Your task to perform on an android device: Open Youtube and go to "Your channel" Image 0: 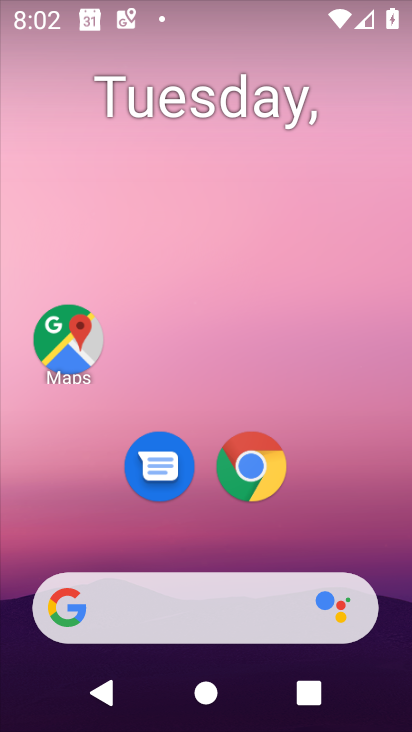
Step 0: drag from (356, 524) to (329, 124)
Your task to perform on an android device: Open Youtube and go to "Your channel" Image 1: 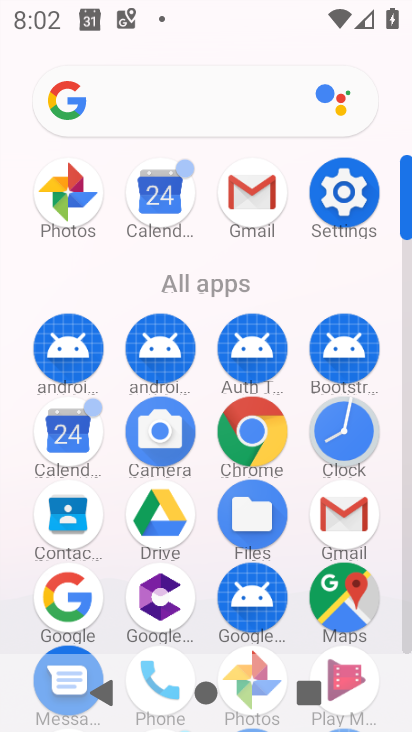
Step 1: click (406, 620)
Your task to perform on an android device: Open Youtube and go to "Your channel" Image 2: 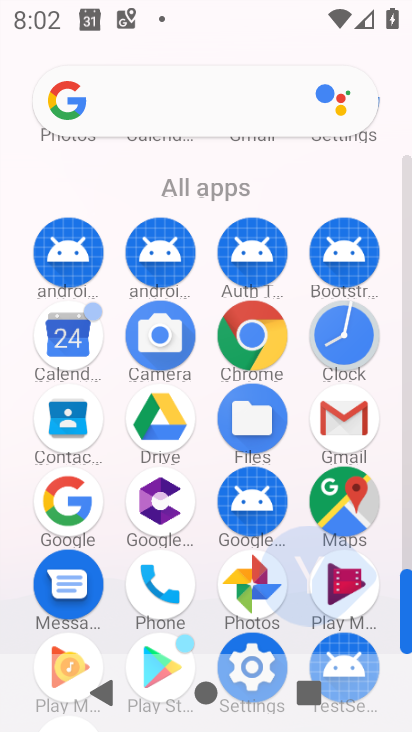
Step 2: click (406, 620)
Your task to perform on an android device: Open Youtube and go to "Your channel" Image 3: 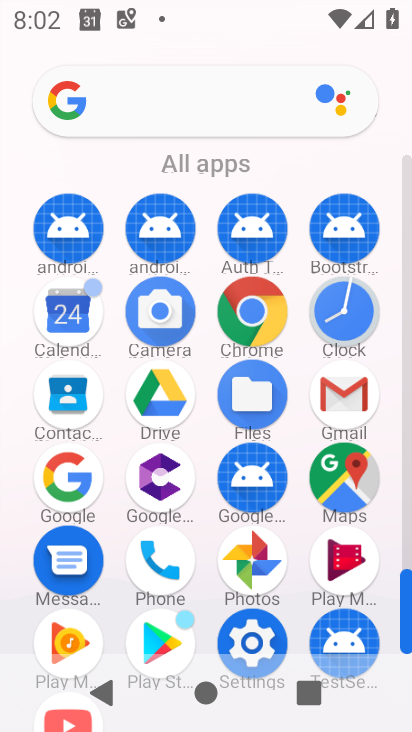
Step 3: click (406, 620)
Your task to perform on an android device: Open Youtube and go to "Your channel" Image 4: 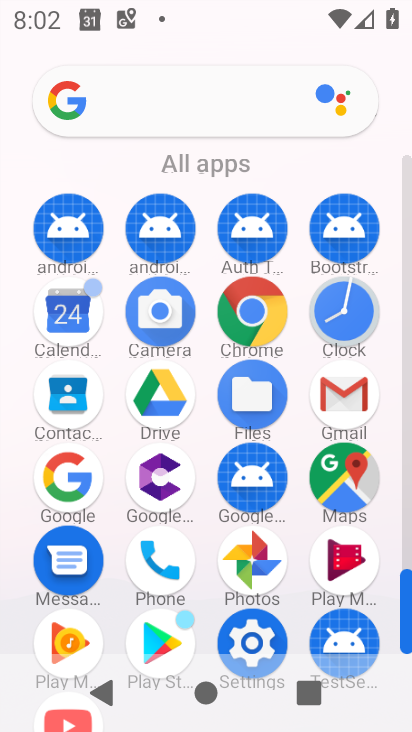
Step 4: click (406, 620)
Your task to perform on an android device: Open Youtube and go to "Your channel" Image 5: 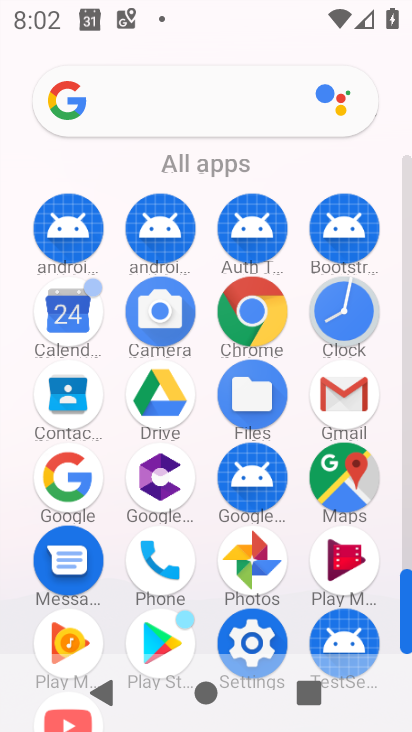
Step 5: drag from (406, 620) to (392, 711)
Your task to perform on an android device: Open Youtube and go to "Your channel" Image 6: 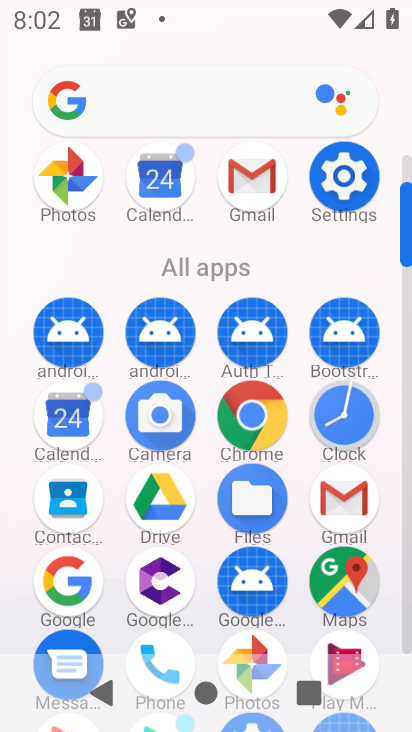
Step 6: click (405, 653)
Your task to perform on an android device: Open Youtube and go to "Your channel" Image 7: 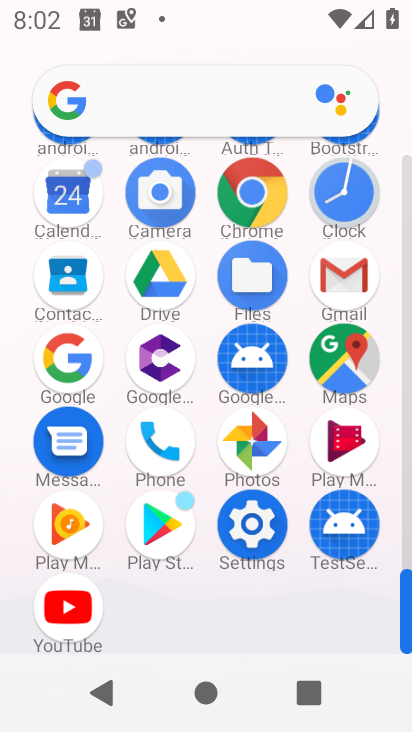
Step 7: click (96, 641)
Your task to perform on an android device: Open Youtube and go to "Your channel" Image 8: 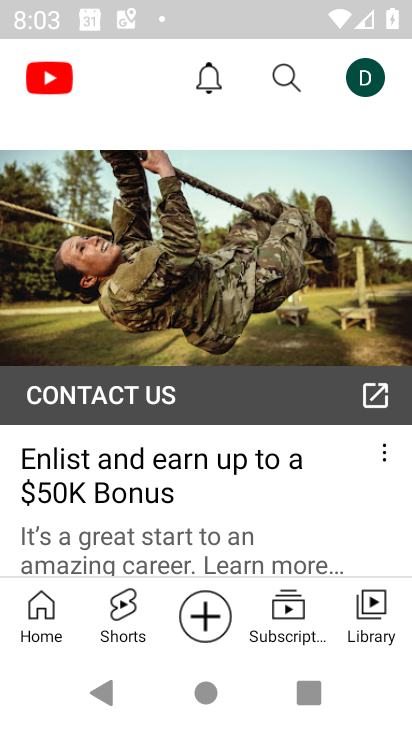
Step 8: click (361, 67)
Your task to perform on an android device: Open Youtube and go to "Your channel" Image 9: 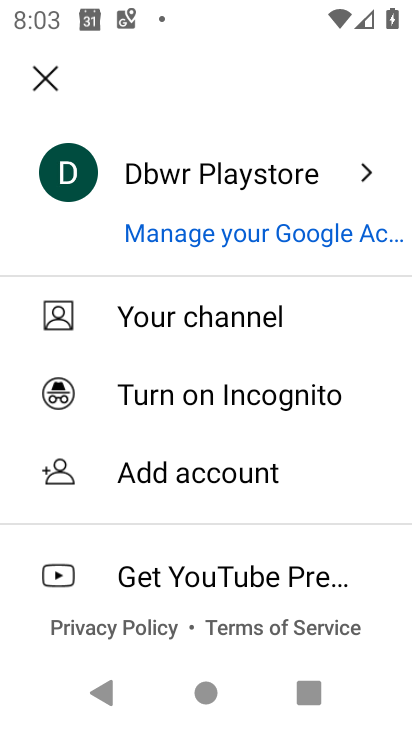
Step 9: click (212, 296)
Your task to perform on an android device: Open Youtube and go to "Your channel" Image 10: 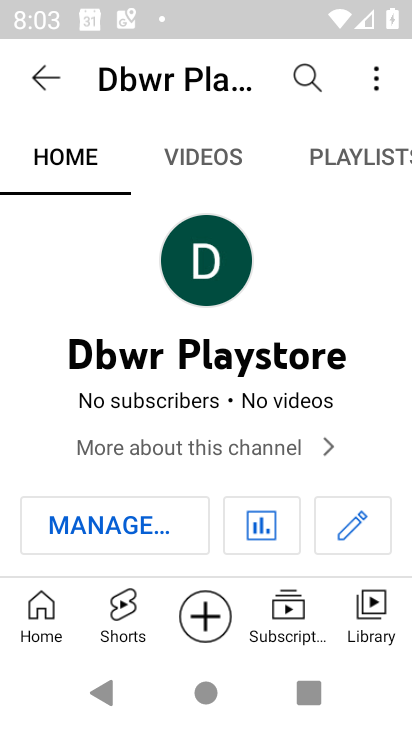
Step 10: task complete